Your task to perform on an android device: change notification settings in the gmail app Image 0: 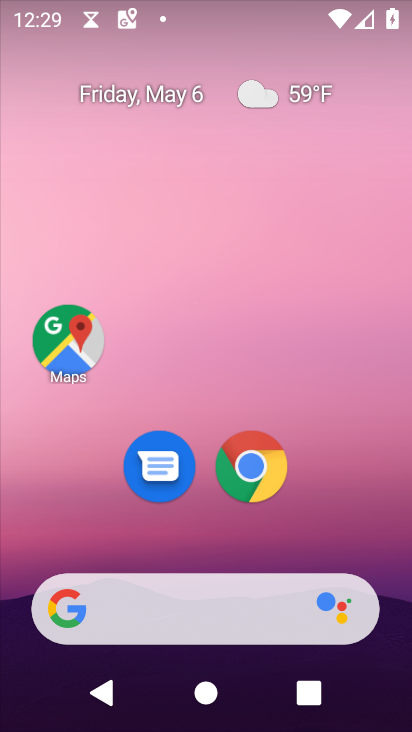
Step 0: click (306, 59)
Your task to perform on an android device: change notification settings in the gmail app Image 1: 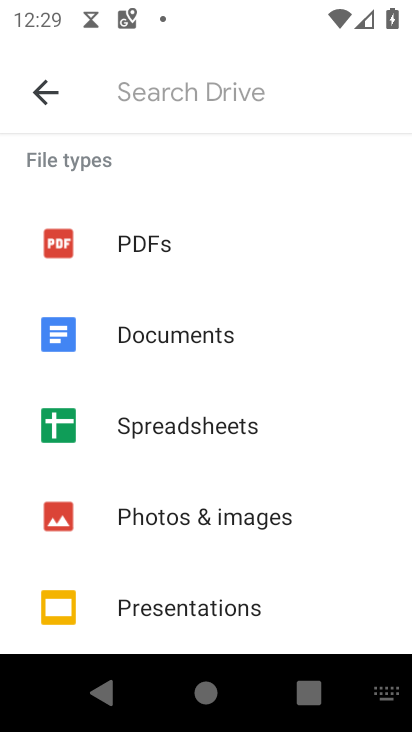
Step 1: press home button
Your task to perform on an android device: change notification settings in the gmail app Image 2: 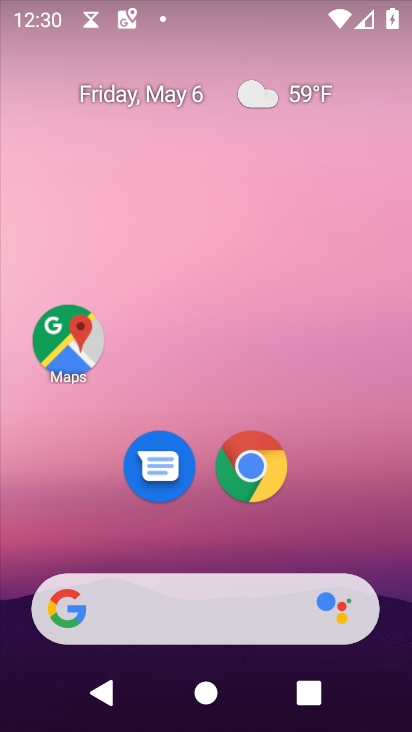
Step 2: drag from (380, 488) to (279, 50)
Your task to perform on an android device: change notification settings in the gmail app Image 3: 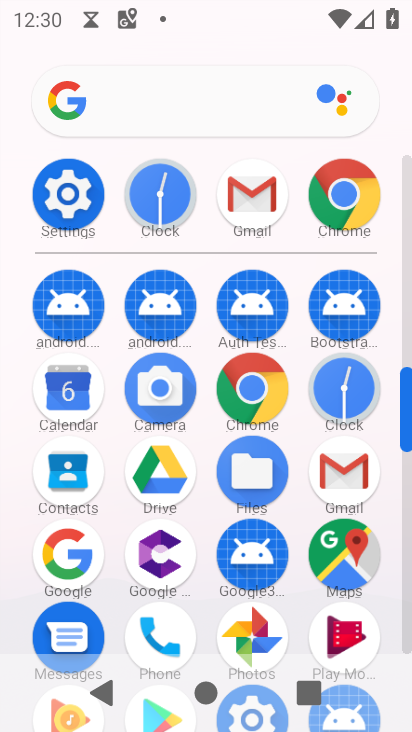
Step 3: click (245, 193)
Your task to perform on an android device: change notification settings in the gmail app Image 4: 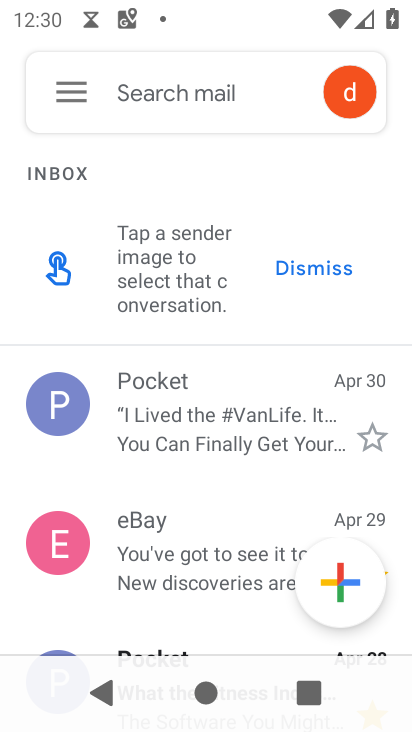
Step 4: click (79, 94)
Your task to perform on an android device: change notification settings in the gmail app Image 5: 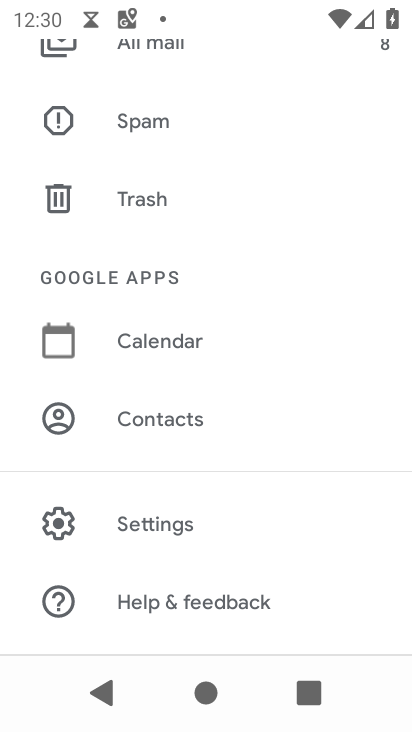
Step 5: click (216, 520)
Your task to perform on an android device: change notification settings in the gmail app Image 6: 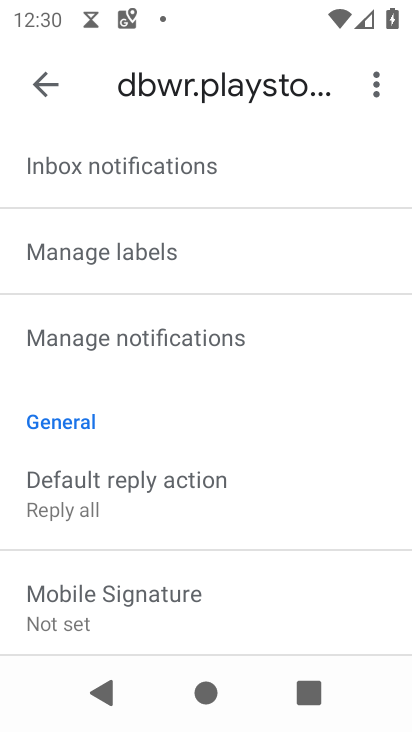
Step 6: drag from (267, 608) to (207, 146)
Your task to perform on an android device: change notification settings in the gmail app Image 7: 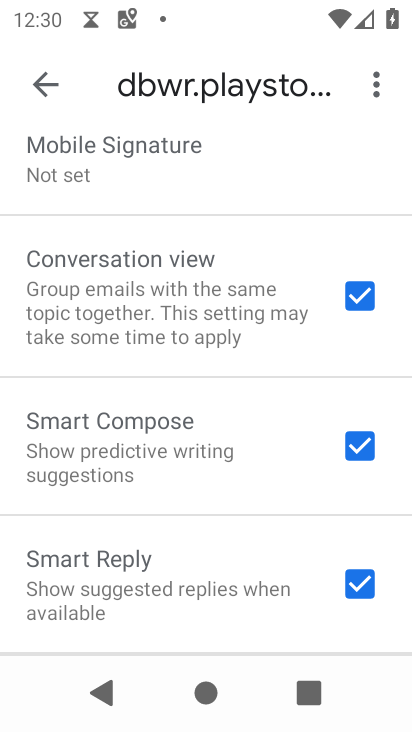
Step 7: drag from (243, 327) to (266, 712)
Your task to perform on an android device: change notification settings in the gmail app Image 8: 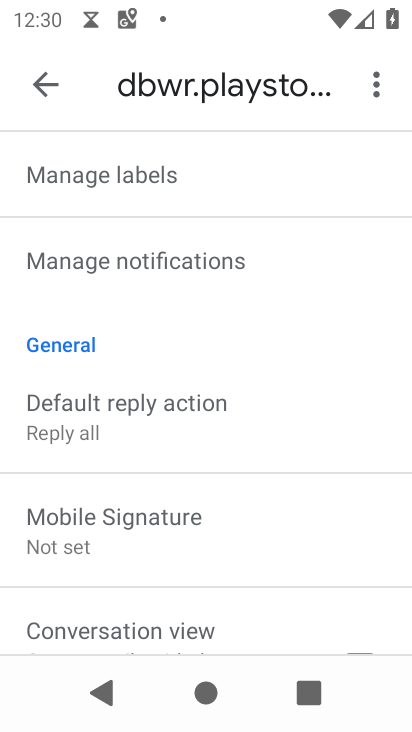
Step 8: click (230, 278)
Your task to perform on an android device: change notification settings in the gmail app Image 9: 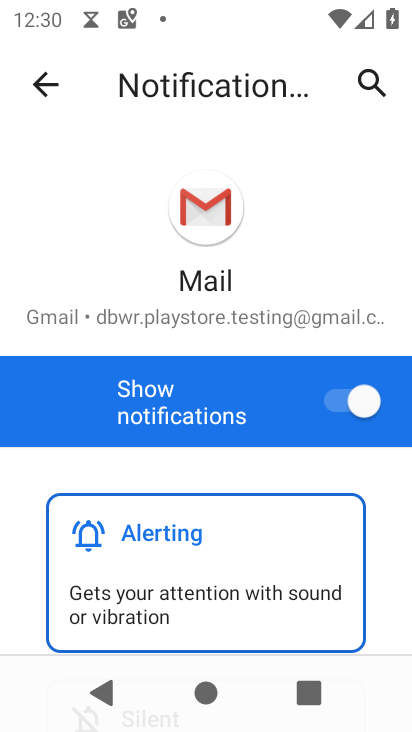
Step 9: drag from (389, 601) to (342, 285)
Your task to perform on an android device: change notification settings in the gmail app Image 10: 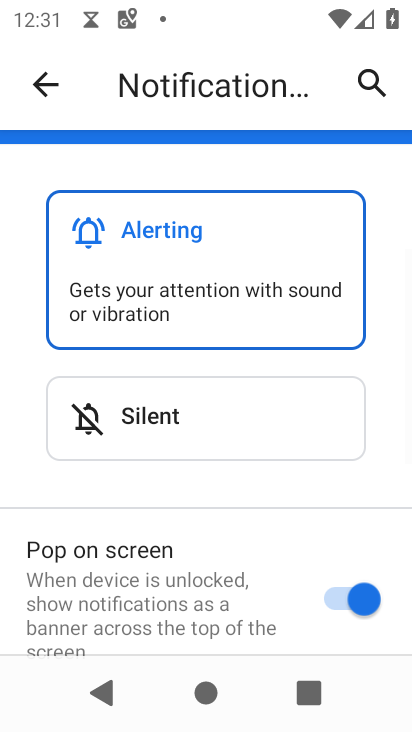
Step 10: click (305, 440)
Your task to perform on an android device: change notification settings in the gmail app Image 11: 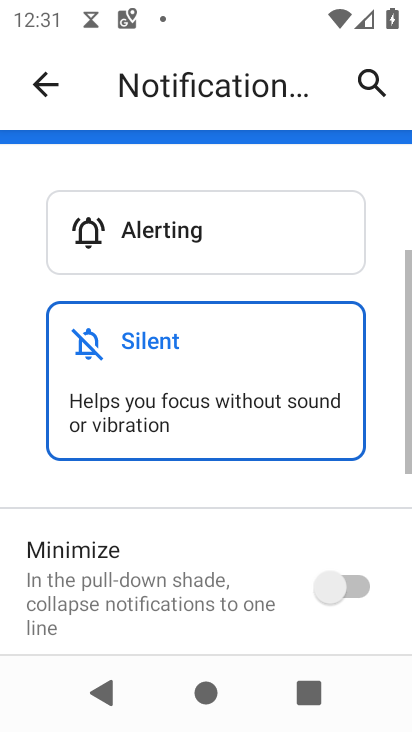
Step 11: click (346, 585)
Your task to perform on an android device: change notification settings in the gmail app Image 12: 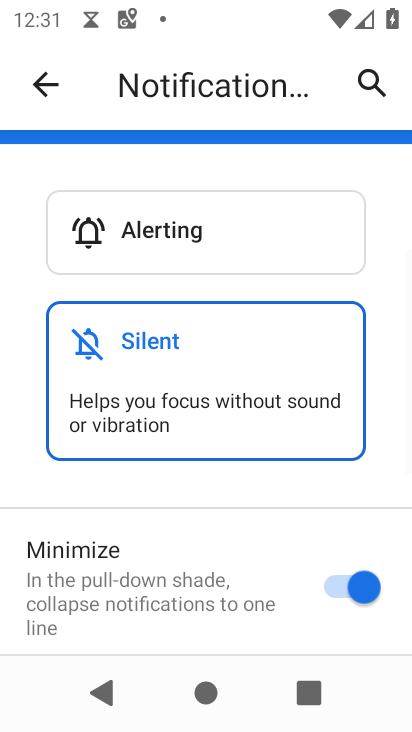
Step 12: task complete